Your task to perform on an android device: Set the phone to "Do not disturb". Image 0: 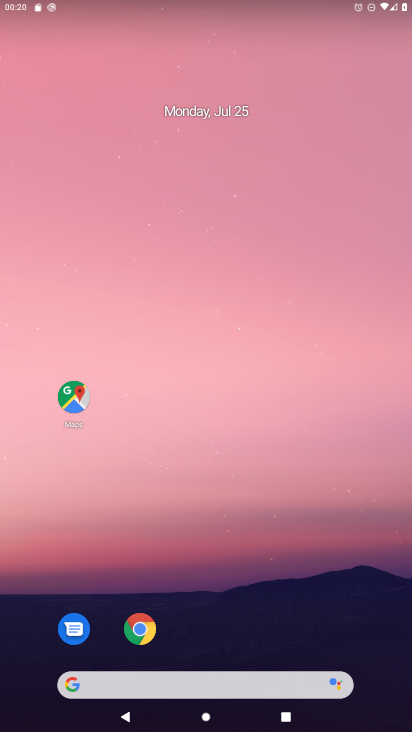
Step 0: drag from (200, 604) to (142, 215)
Your task to perform on an android device: Set the phone to "Do not disturb". Image 1: 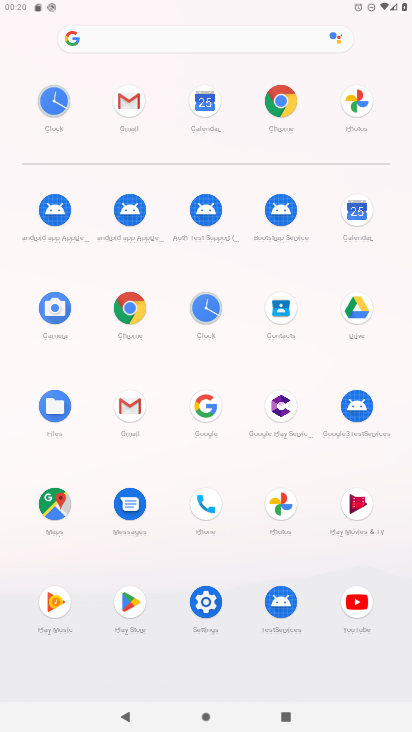
Step 1: click (201, 605)
Your task to perform on an android device: Set the phone to "Do not disturb". Image 2: 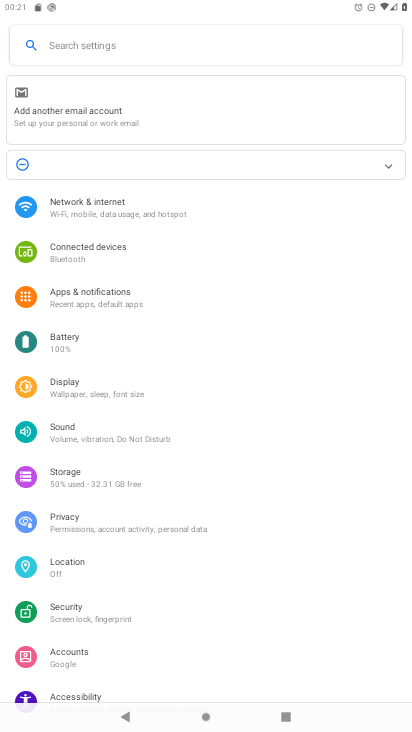
Step 2: click (144, 292)
Your task to perform on an android device: Set the phone to "Do not disturb". Image 3: 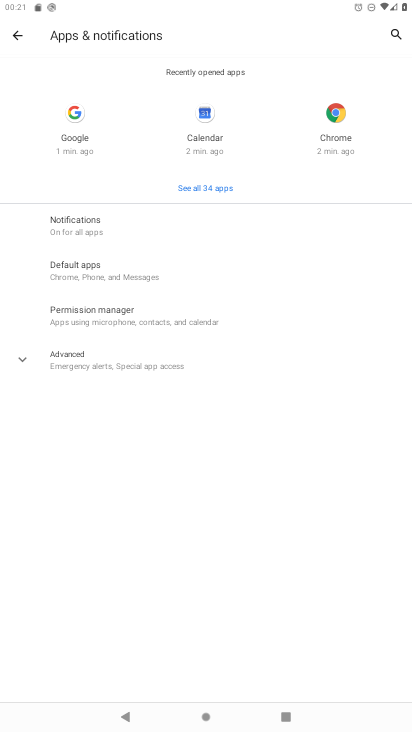
Step 3: click (102, 210)
Your task to perform on an android device: Set the phone to "Do not disturb". Image 4: 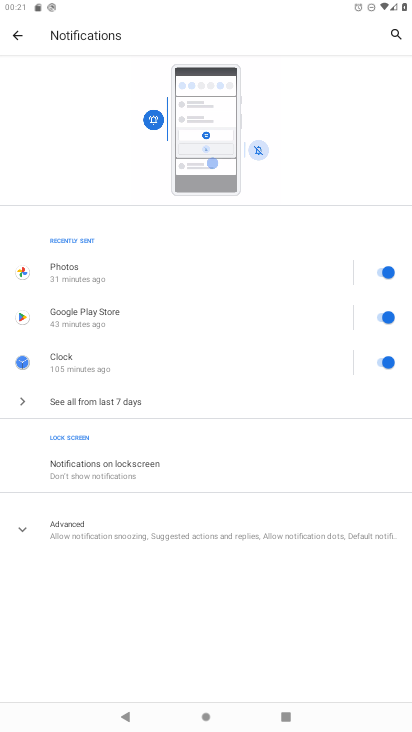
Step 4: drag from (128, 638) to (156, 407)
Your task to perform on an android device: Set the phone to "Do not disturb". Image 5: 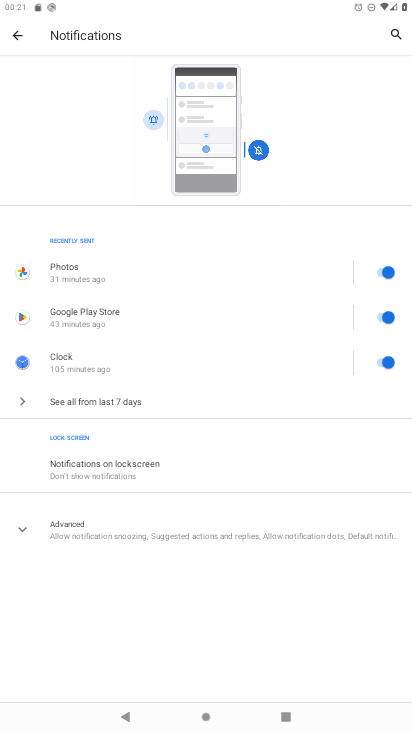
Step 5: drag from (95, 580) to (128, 294)
Your task to perform on an android device: Set the phone to "Do not disturb". Image 6: 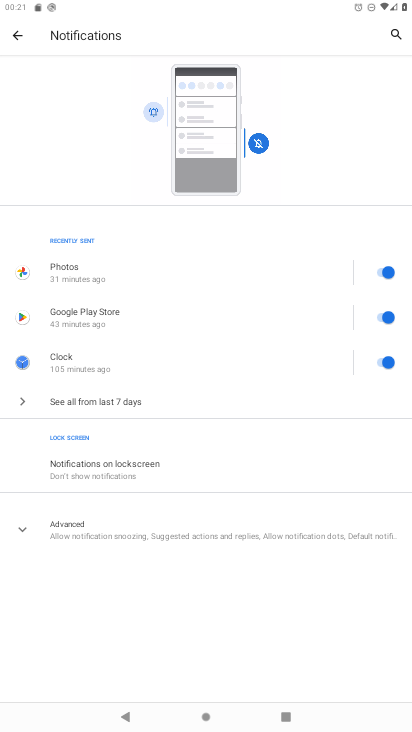
Step 6: click (45, 527)
Your task to perform on an android device: Set the phone to "Do not disturb". Image 7: 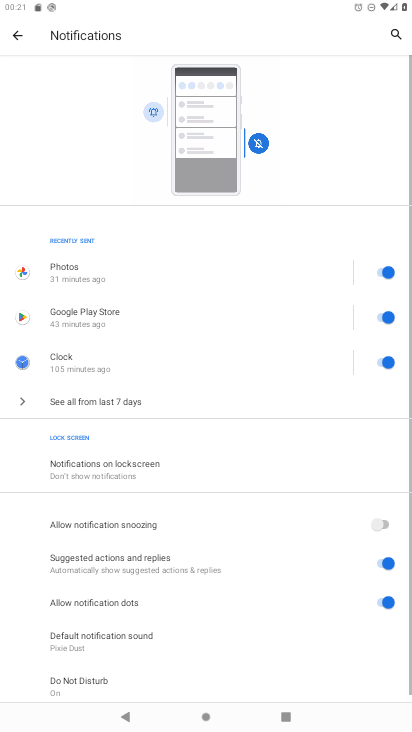
Step 7: drag from (112, 523) to (199, 146)
Your task to perform on an android device: Set the phone to "Do not disturb". Image 8: 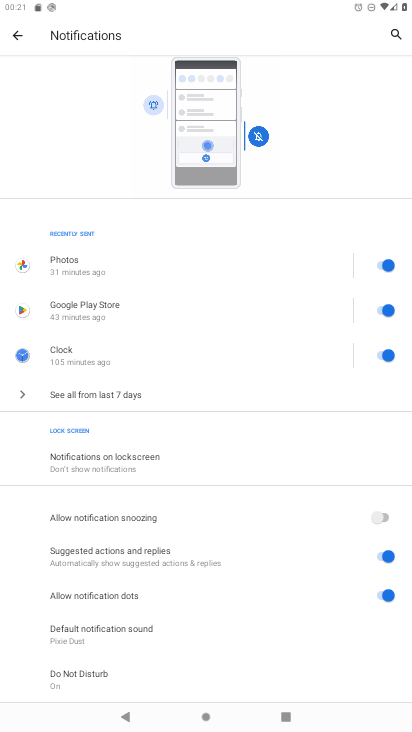
Step 8: click (126, 670)
Your task to perform on an android device: Set the phone to "Do not disturb". Image 9: 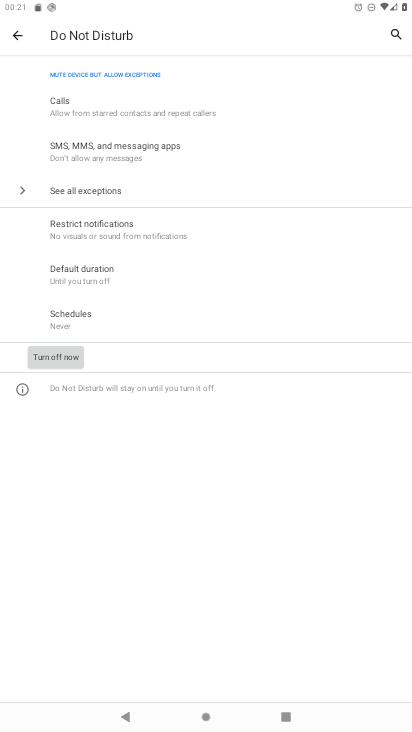
Step 9: task complete